Your task to perform on an android device: add a label to a message in the gmail app Image 0: 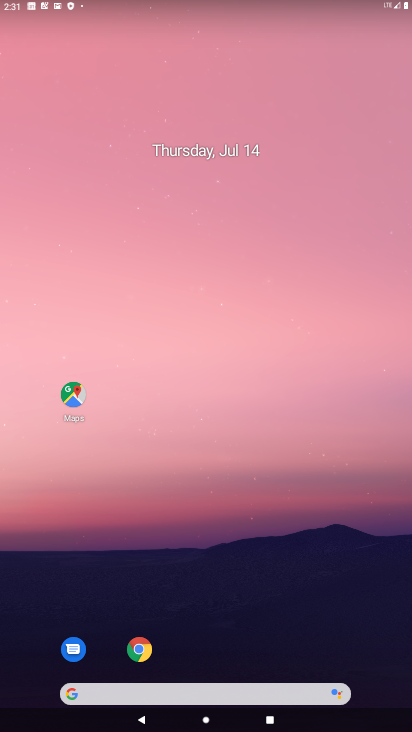
Step 0: drag from (368, 667) to (163, 7)
Your task to perform on an android device: add a label to a message in the gmail app Image 1: 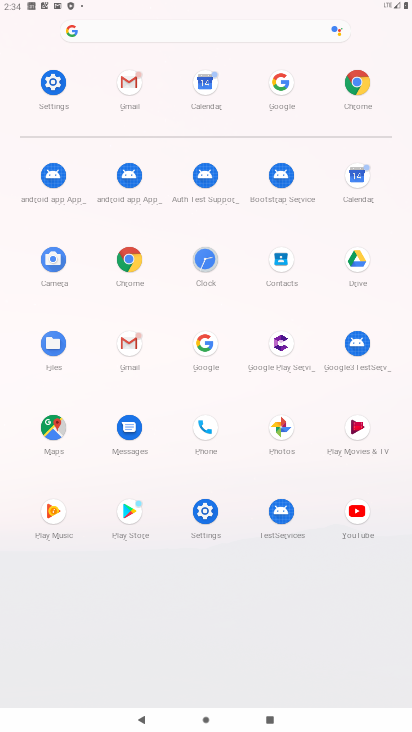
Step 1: click (127, 356)
Your task to perform on an android device: add a label to a message in the gmail app Image 2: 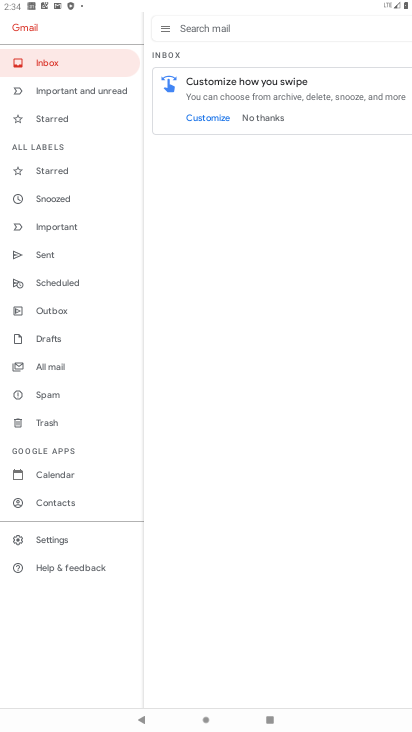
Step 2: task complete